Your task to perform on an android device: allow notifications from all sites in the chrome app Image 0: 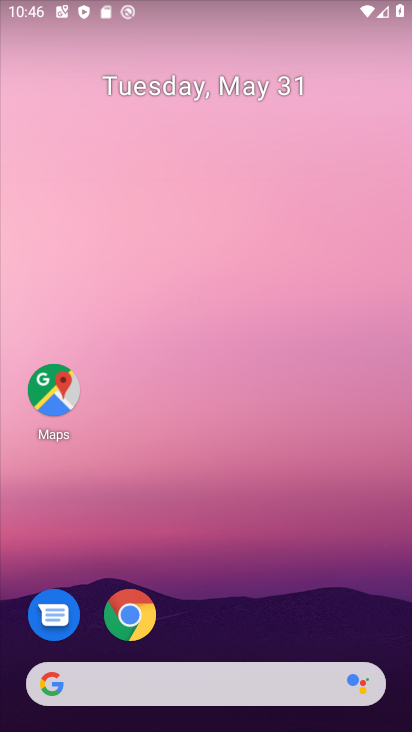
Step 0: click (139, 610)
Your task to perform on an android device: allow notifications from all sites in the chrome app Image 1: 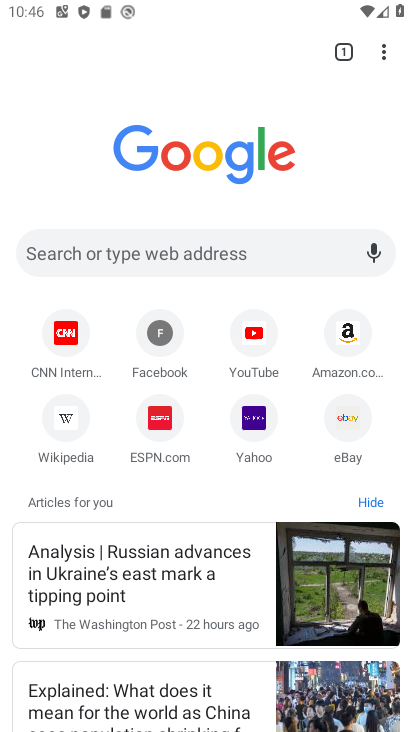
Step 1: task complete